Your task to perform on an android device: Go to network settings Image 0: 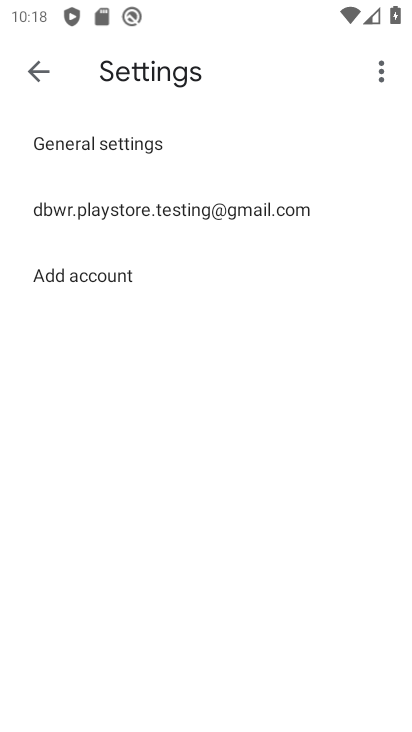
Step 0: press home button
Your task to perform on an android device: Go to network settings Image 1: 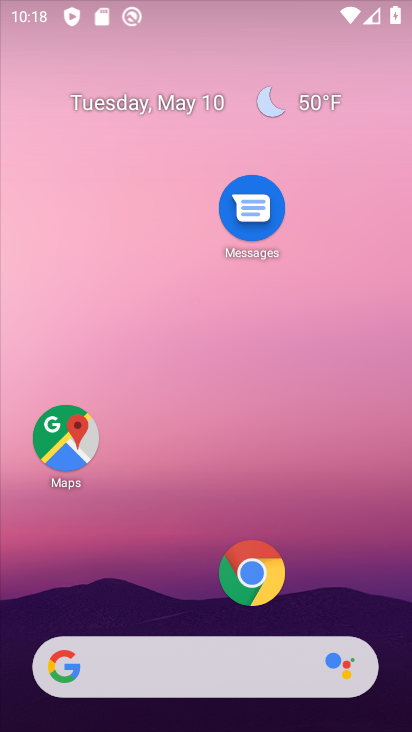
Step 1: drag from (172, 560) to (192, 90)
Your task to perform on an android device: Go to network settings Image 2: 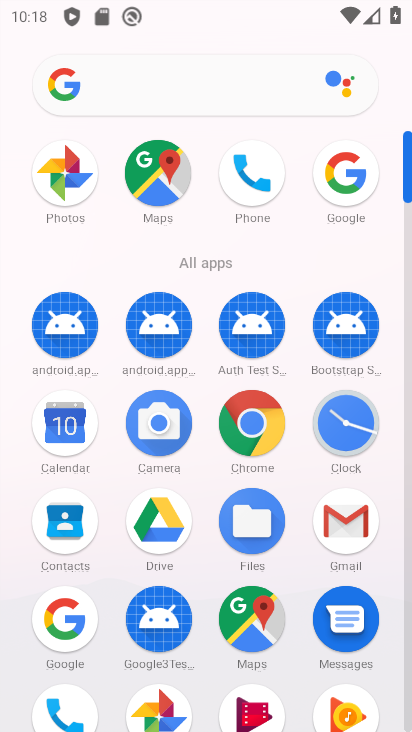
Step 2: drag from (201, 560) to (224, 128)
Your task to perform on an android device: Go to network settings Image 3: 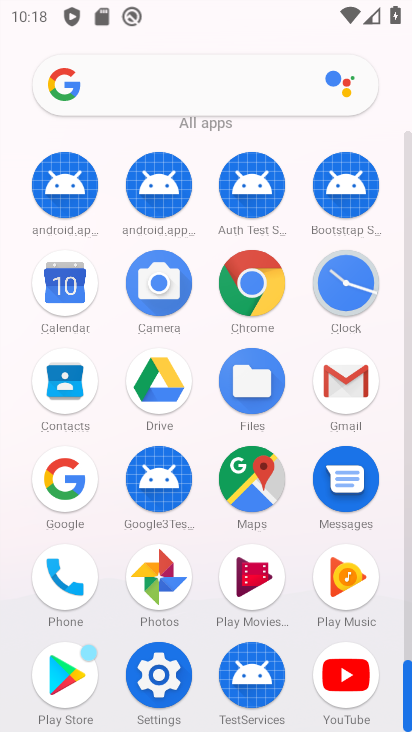
Step 3: click (158, 678)
Your task to perform on an android device: Go to network settings Image 4: 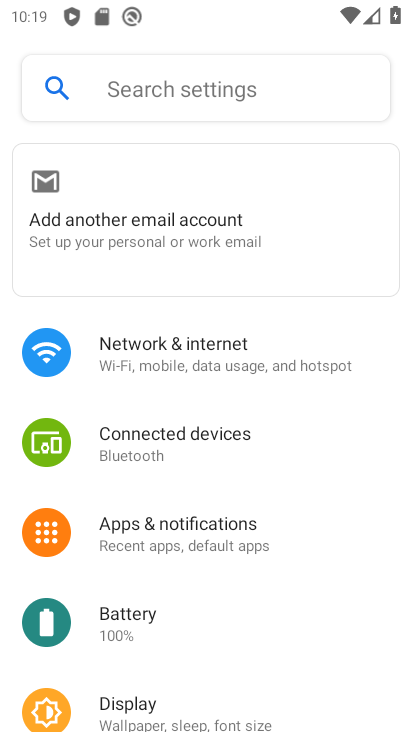
Step 4: click (200, 366)
Your task to perform on an android device: Go to network settings Image 5: 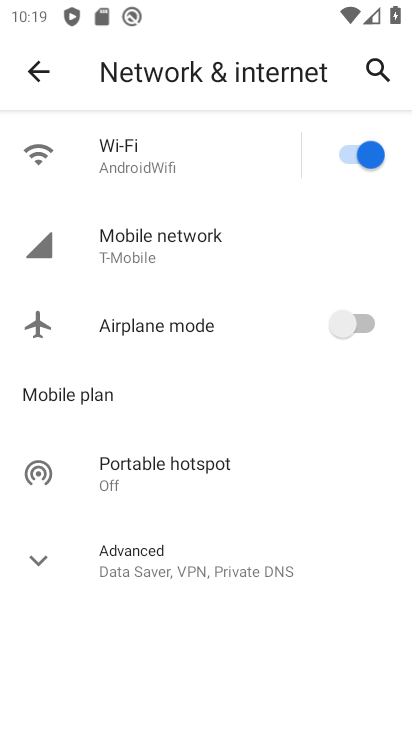
Step 5: click (136, 244)
Your task to perform on an android device: Go to network settings Image 6: 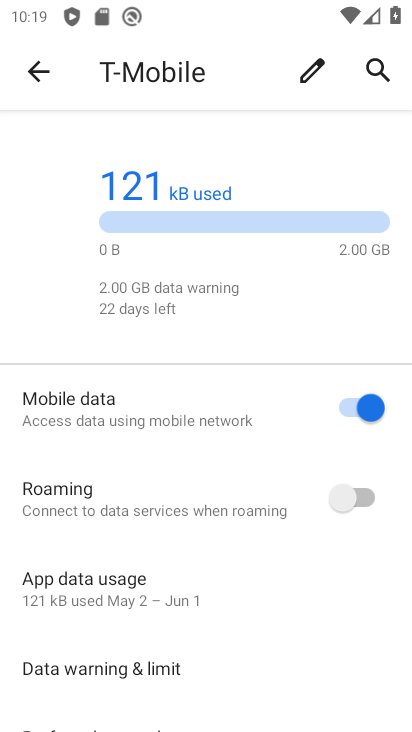
Step 6: task complete